Your task to perform on an android device: Go to Maps Image 0: 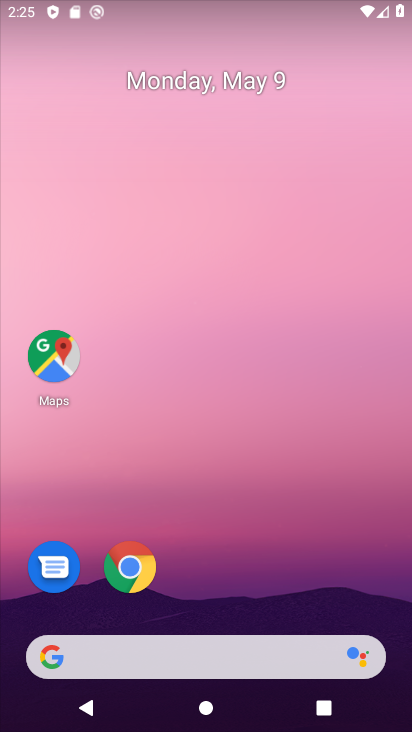
Step 0: click (38, 360)
Your task to perform on an android device: Go to Maps Image 1: 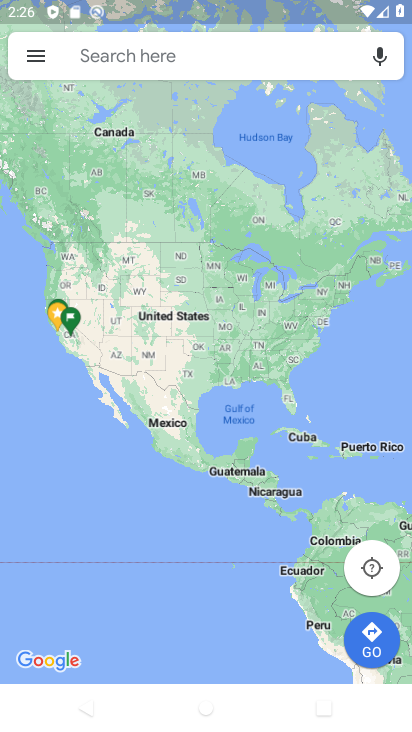
Step 1: task complete